Your task to perform on an android device: add a contact Image 0: 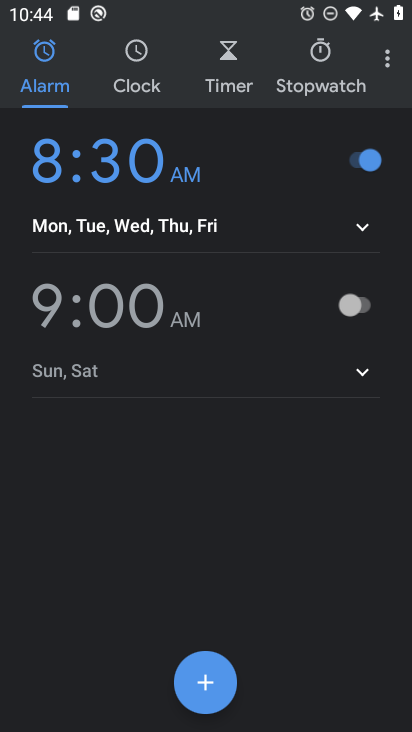
Step 0: press home button
Your task to perform on an android device: add a contact Image 1: 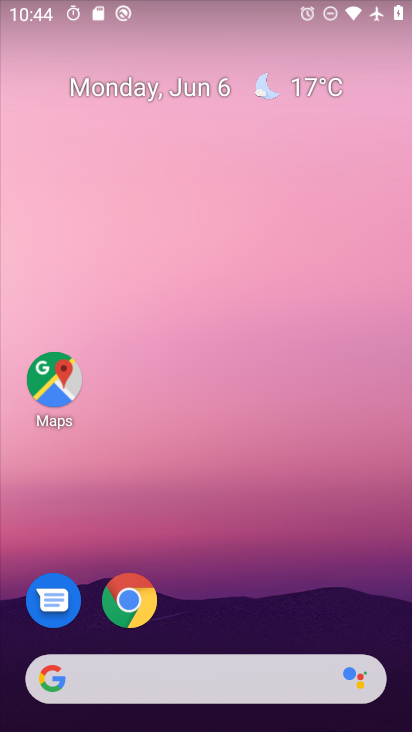
Step 1: drag from (292, 481) to (131, 70)
Your task to perform on an android device: add a contact Image 2: 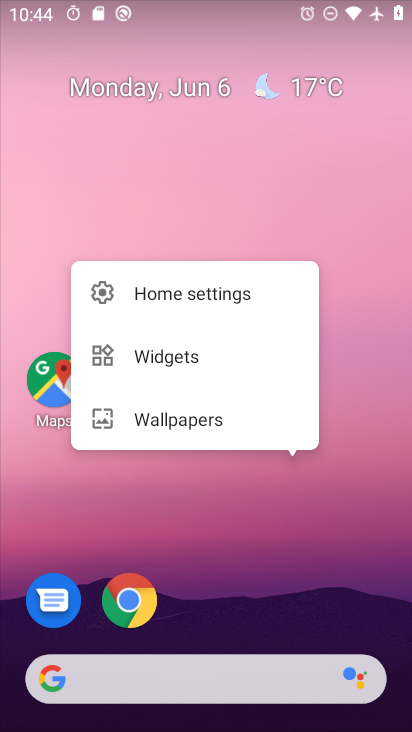
Step 2: drag from (282, 555) to (148, 7)
Your task to perform on an android device: add a contact Image 3: 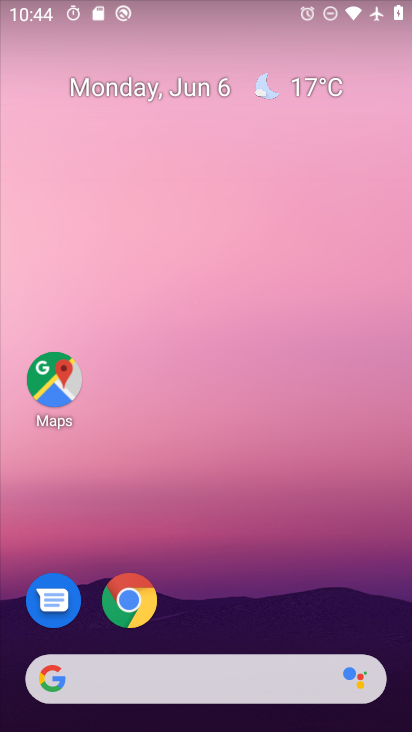
Step 3: drag from (268, 485) to (153, 1)
Your task to perform on an android device: add a contact Image 4: 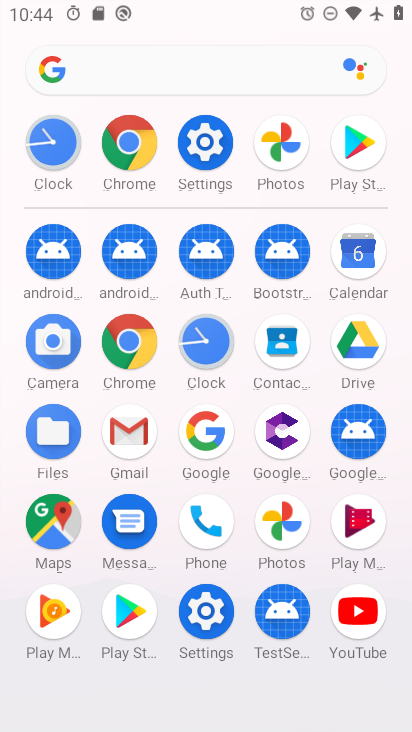
Step 4: click (282, 347)
Your task to perform on an android device: add a contact Image 5: 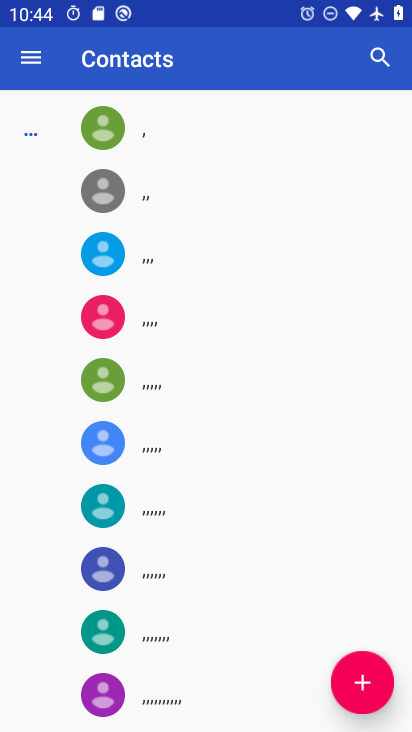
Step 5: click (369, 685)
Your task to perform on an android device: add a contact Image 6: 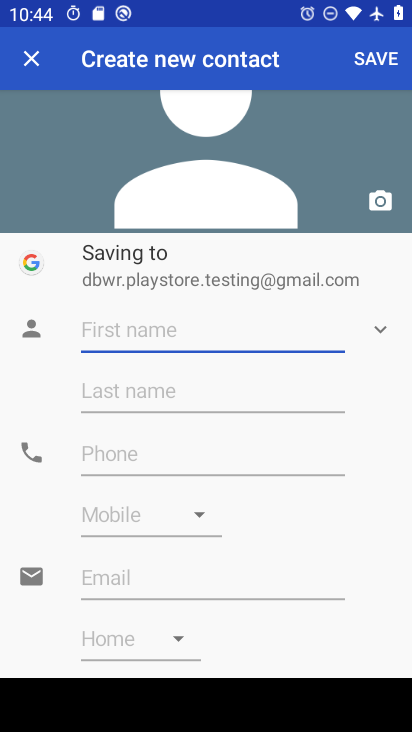
Step 6: click (208, 314)
Your task to perform on an android device: add a contact Image 7: 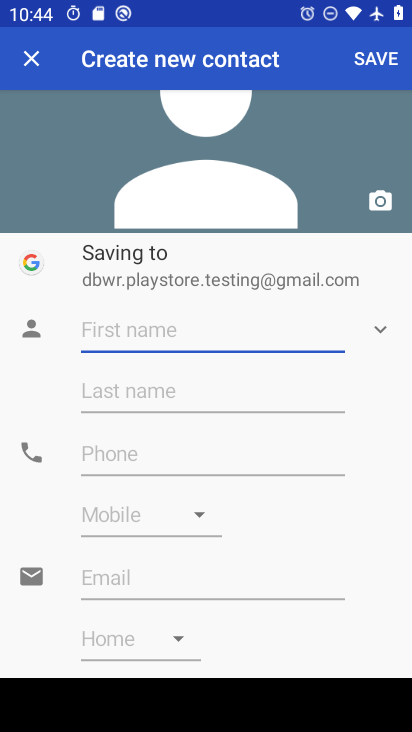
Step 7: type "fgdfgd"
Your task to perform on an android device: add a contact Image 8: 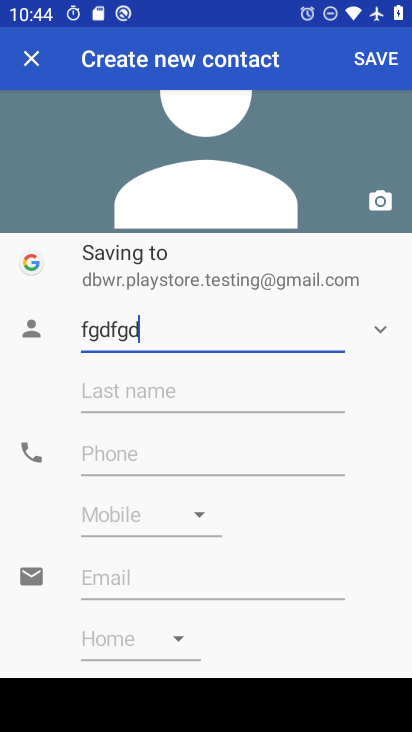
Step 8: type ""
Your task to perform on an android device: add a contact Image 9: 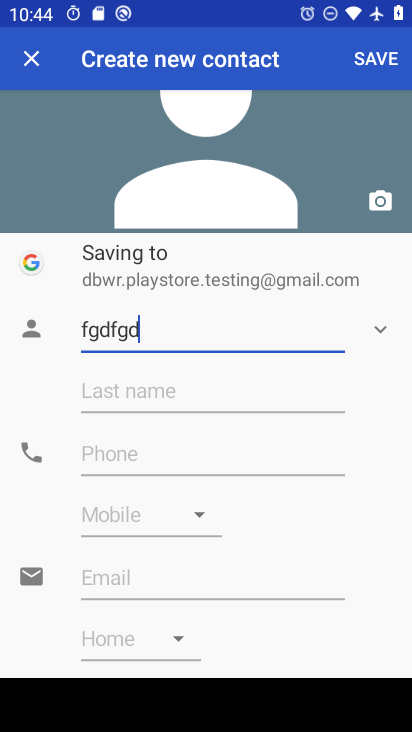
Step 9: click (214, 396)
Your task to perform on an android device: add a contact Image 10: 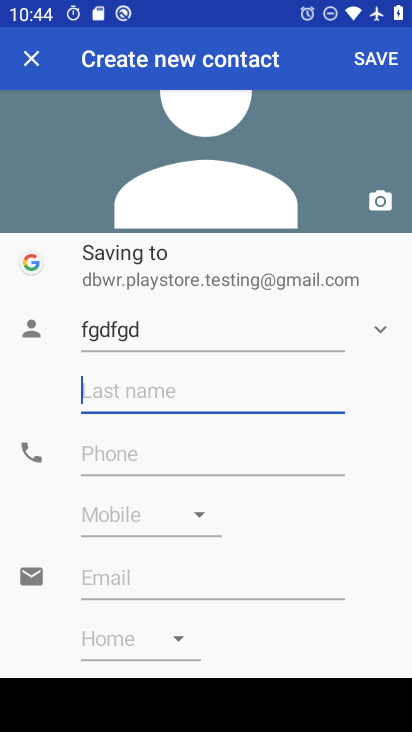
Step 10: type "fgdfgsfg"
Your task to perform on an android device: add a contact Image 11: 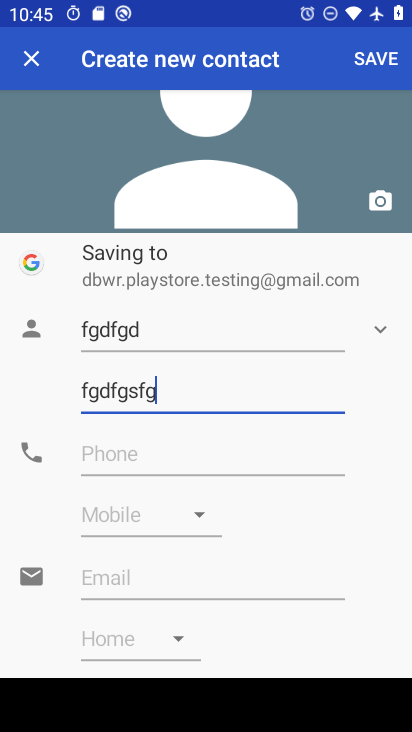
Step 11: type ""
Your task to perform on an android device: add a contact Image 12: 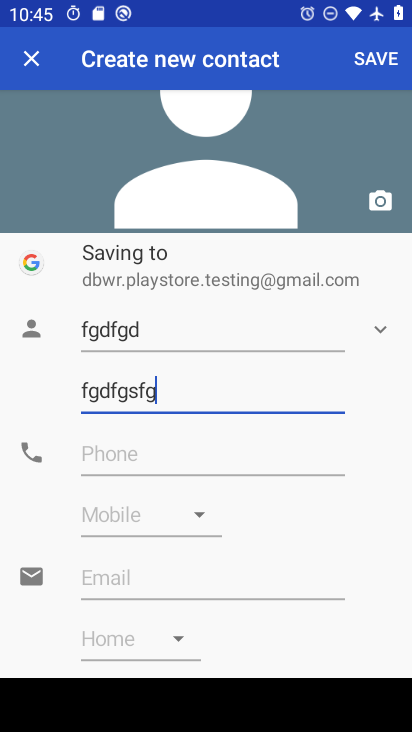
Step 12: click (213, 476)
Your task to perform on an android device: add a contact Image 13: 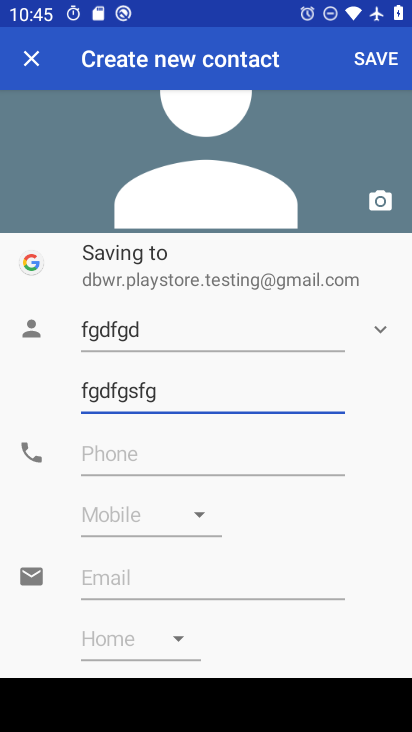
Step 13: click (225, 464)
Your task to perform on an android device: add a contact Image 14: 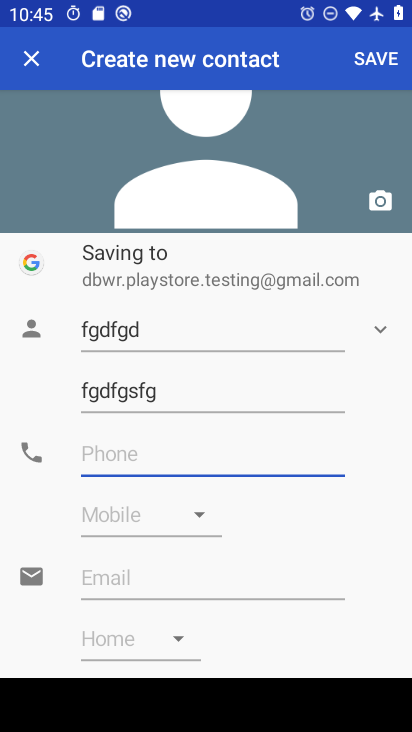
Step 14: type "4523452345234"
Your task to perform on an android device: add a contact Image 15: 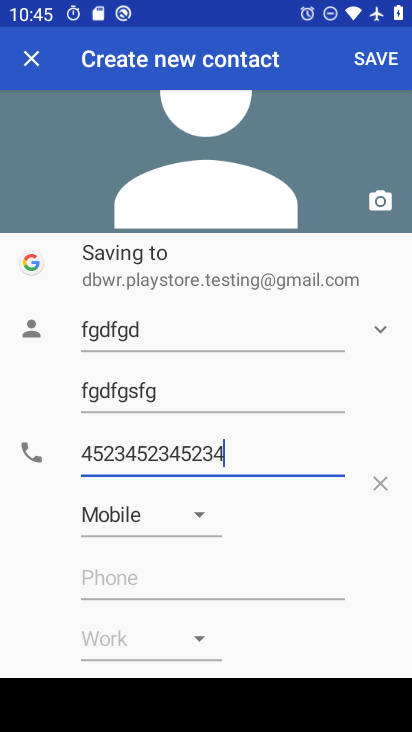
Step 15: type ""
Your task to perform on an android device: add a contact Image 16: 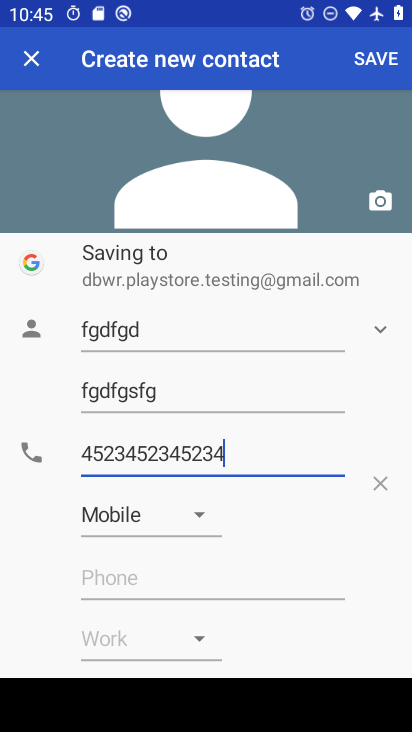
Step 16: type ""
Your task to perform on an android device: add a contact Image 17: 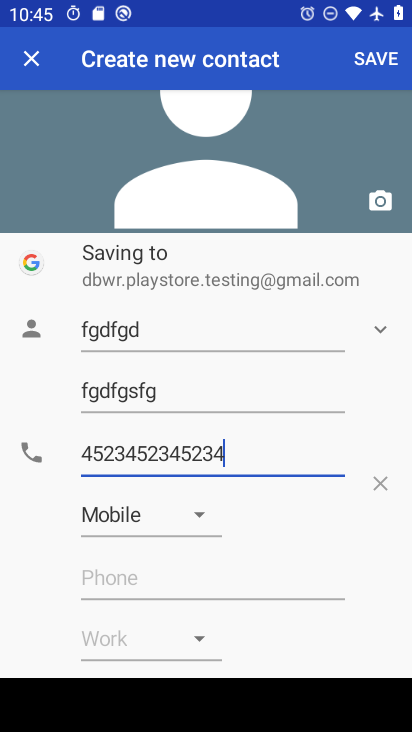
Step 17: click (366, 57)
Your task to perform on an android device: add a contact Image 18: 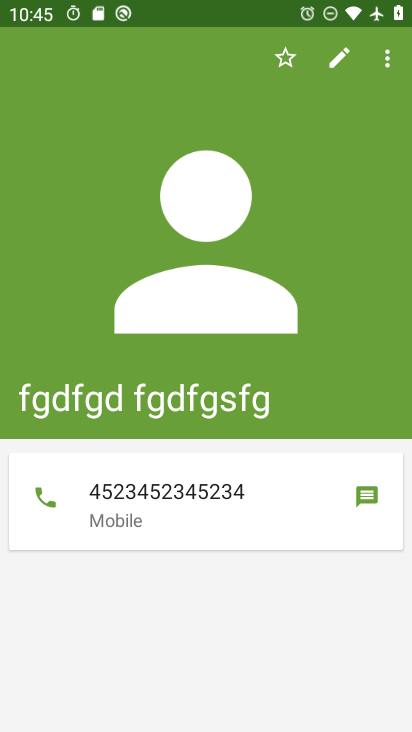
Step 18: task complete